Your task to perform on an android device: Open the phone app and click the voicemail tab. Image 0: 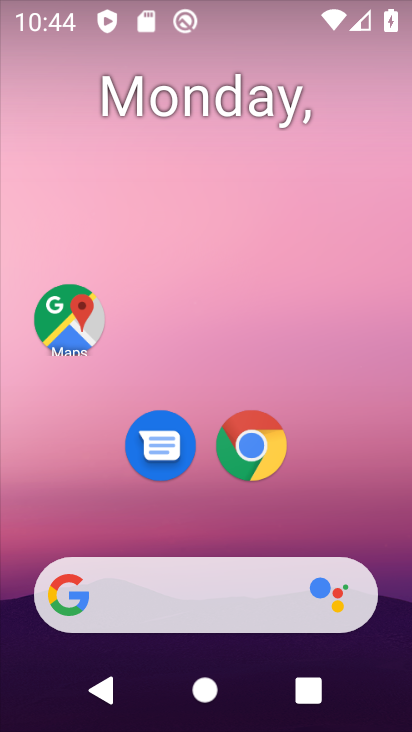
Step 0: drag from (201, 500) to (300, 27)
Your task to perform on an android device: Open the phone app and click the voicemail tab. Image 1: 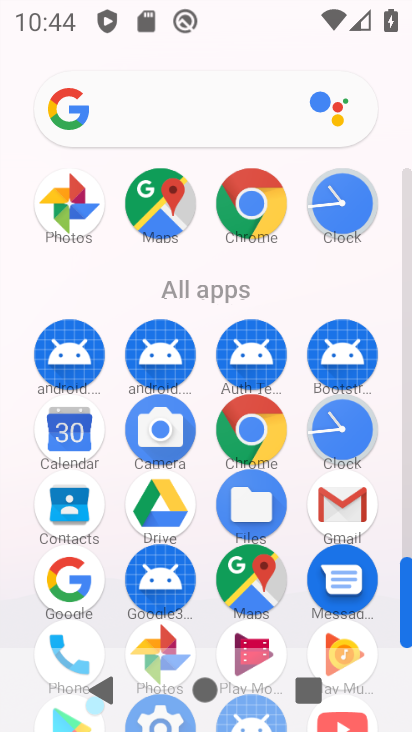
Step 1: click (58, 640)
Your task to perform on an android device: Open the phone app and click the voicemail tab. Image 2: 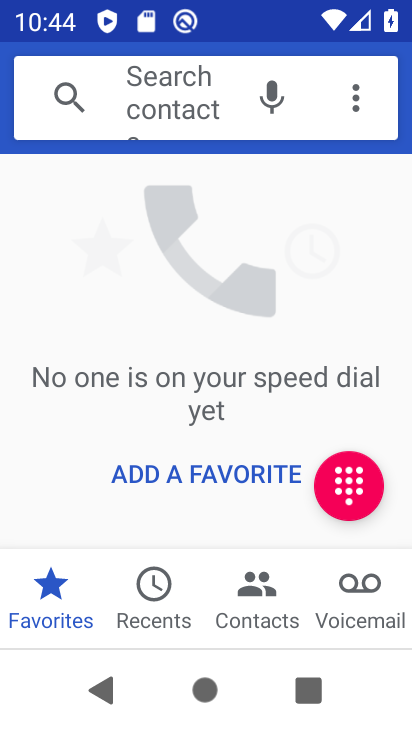
Step 2: click (381, 591)
Your task to perform on an android device: Open the phone app and click the voicemail tab. Image 3: 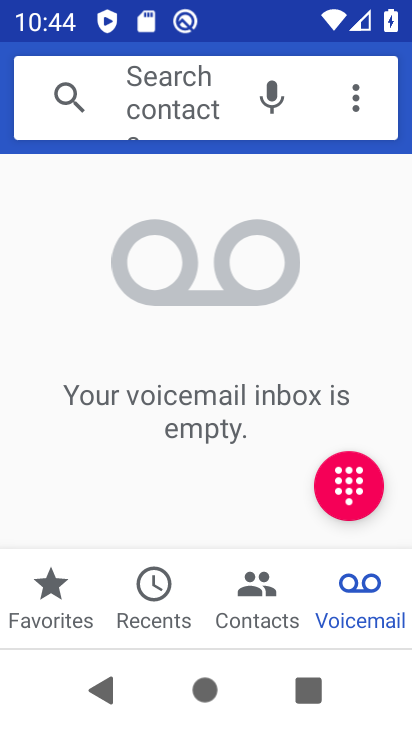
Step 3: task complete